Your task to perform on an android device: Open accessibility settings Image 0: 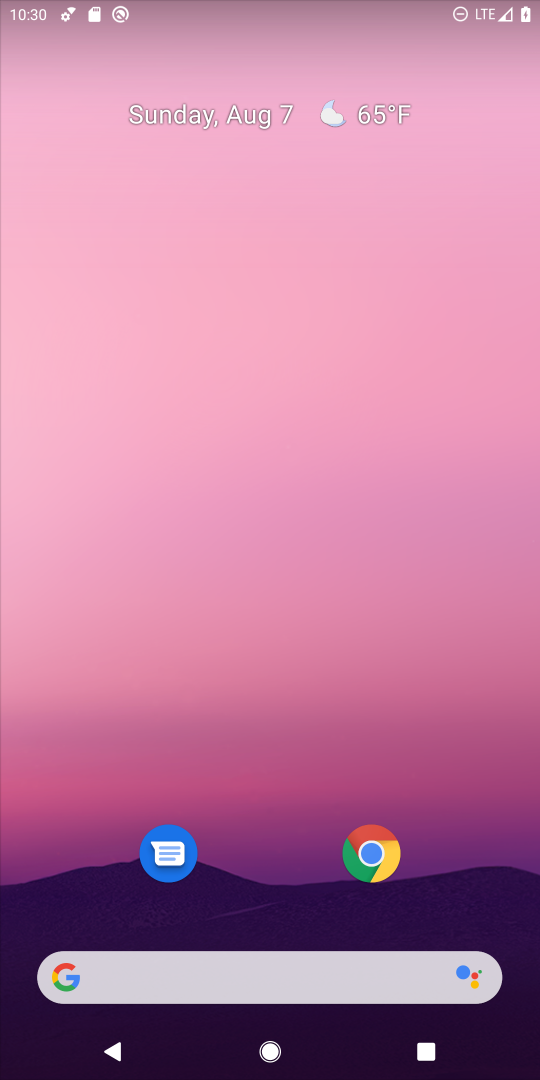
Step 0: drag from (206, 922) to (221, 113)
Your task to perform on an android device: Open accessibility settings Image 1: 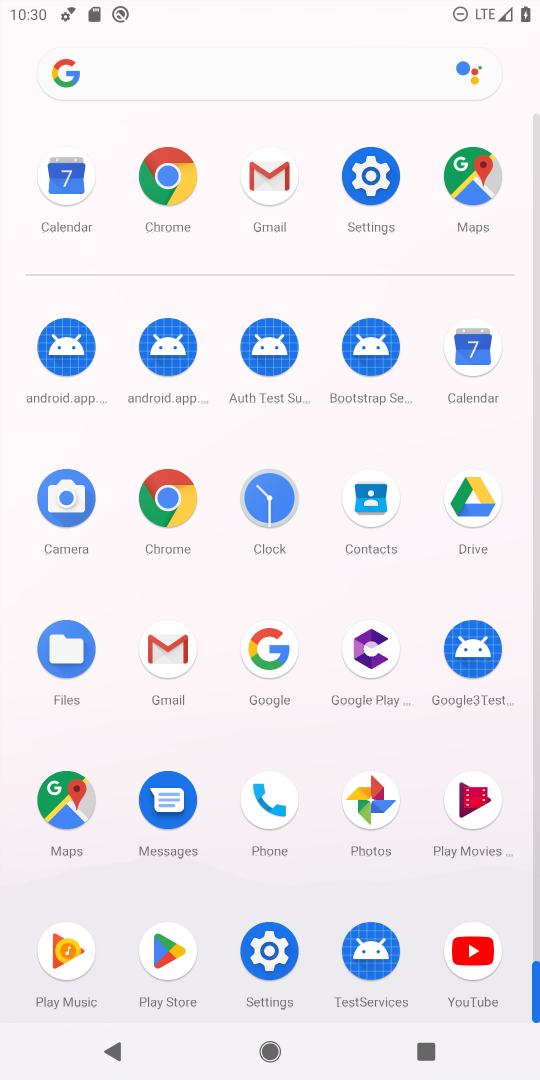
Step 1: click (369, 177)
Your task to perform on an android device: Open accessibility settings Image 2: 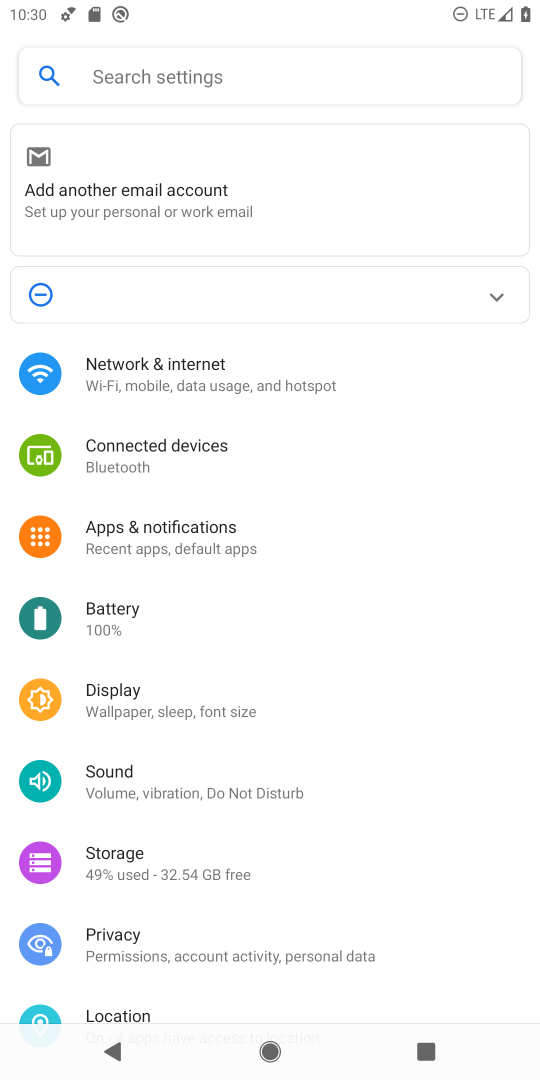
Step 2: drag from (213, 889) to (372, 302)
Your task to perform on an android device: Open accessibility settings Image 3: 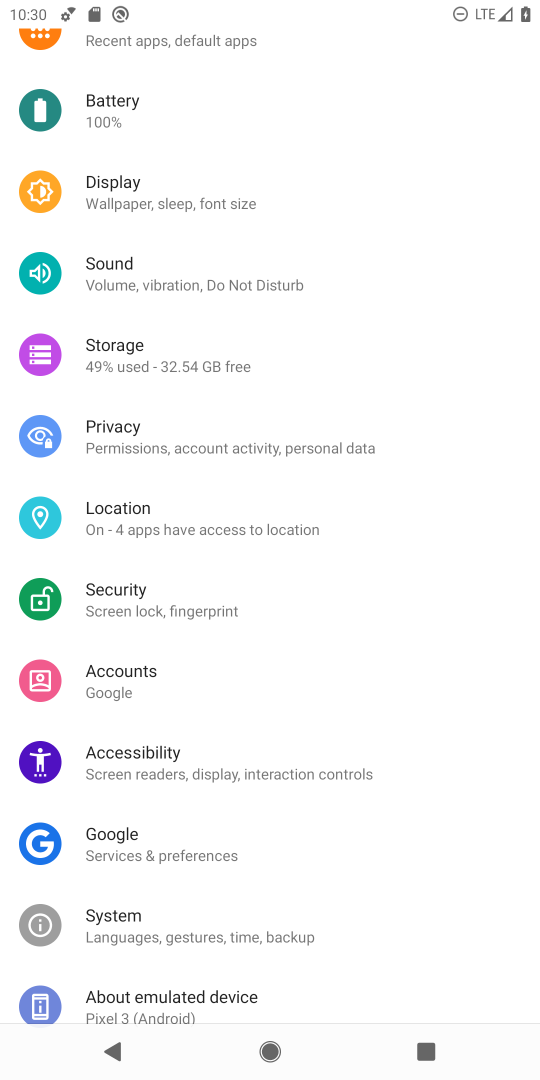
Step 3: click (196, 745)
Your task to perform on an android device: Open accessibility settings Image 4: 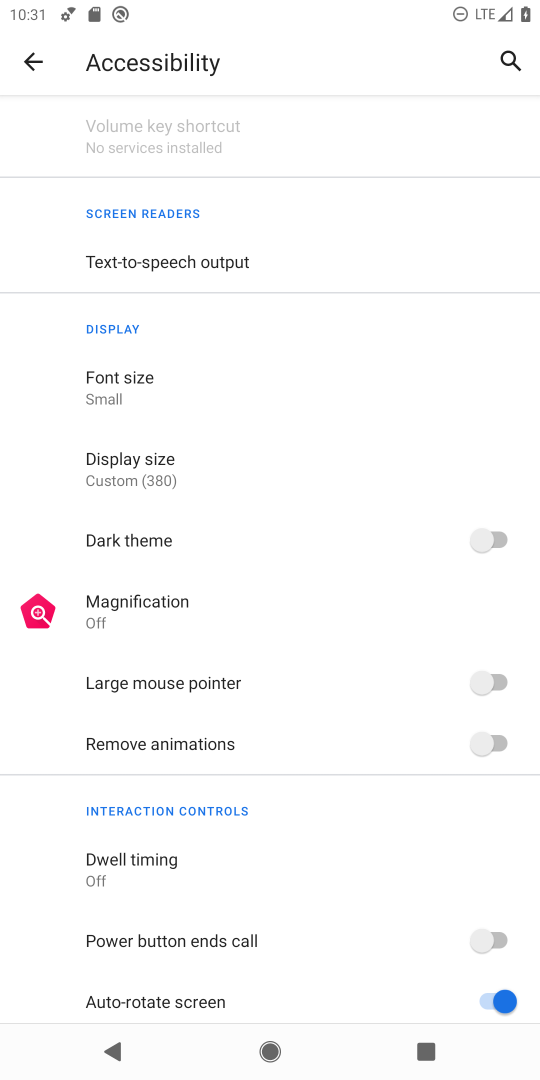
Step 4: task complete